Your task to perform on an android device: Show me the alarms in the clock app Image 0: 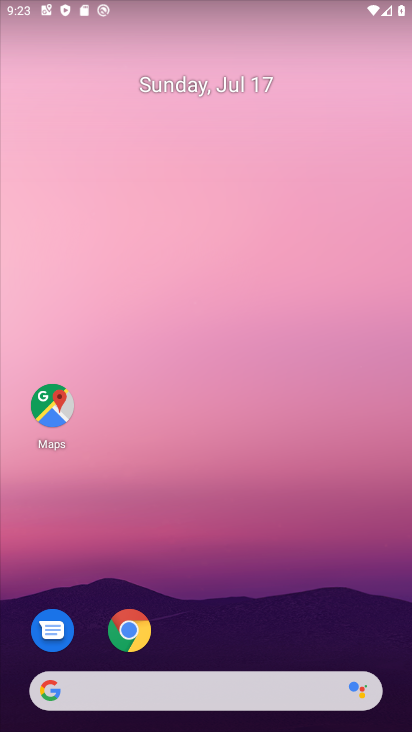
Step 0: drag from (228, 684) to (264, 1)
Your task to perform on an android device: Show me the alarms in the clock app Image 1: 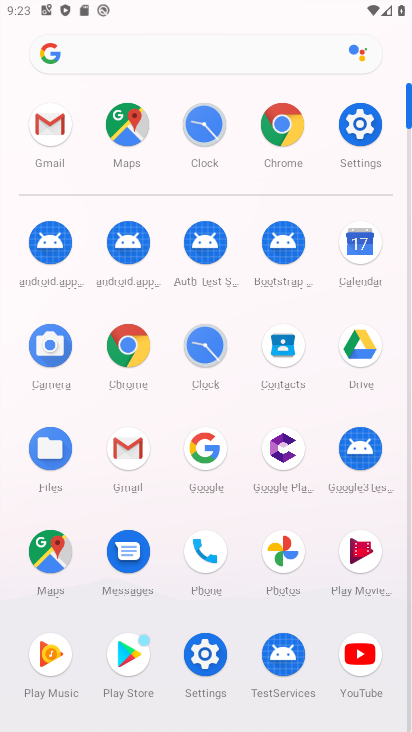
Step 1: click (199, 343)
Your task to perform on an android device: Show me the alarms in the clock app Image 2: 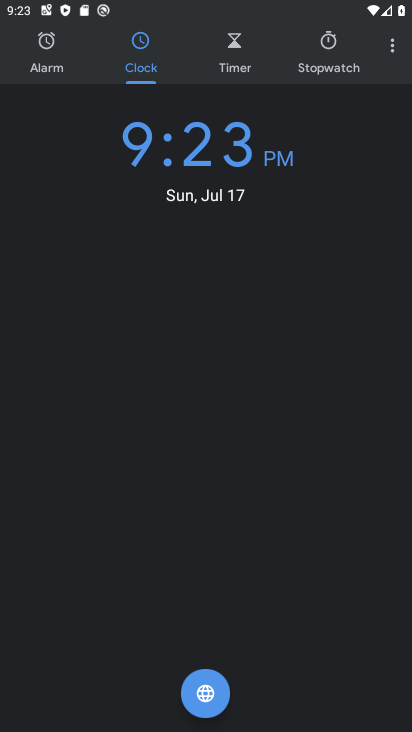
Step 2: click (60, 56)
Your task to perform on an android device: Show me the alarms in the clock app Image 3: 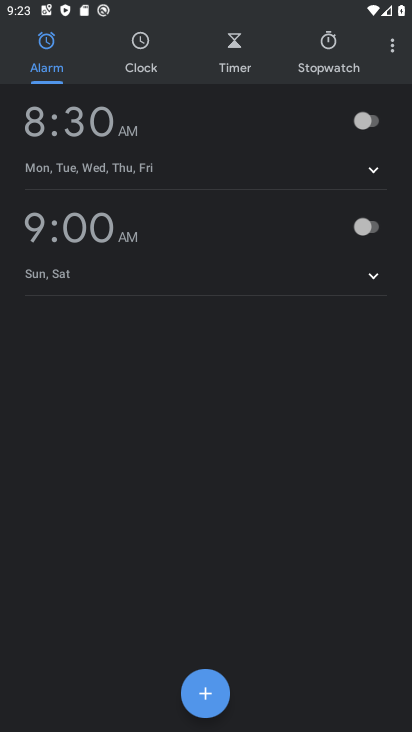
Step 3: task complete